Your task to perform on an android device: change text size in settings app Image 0: 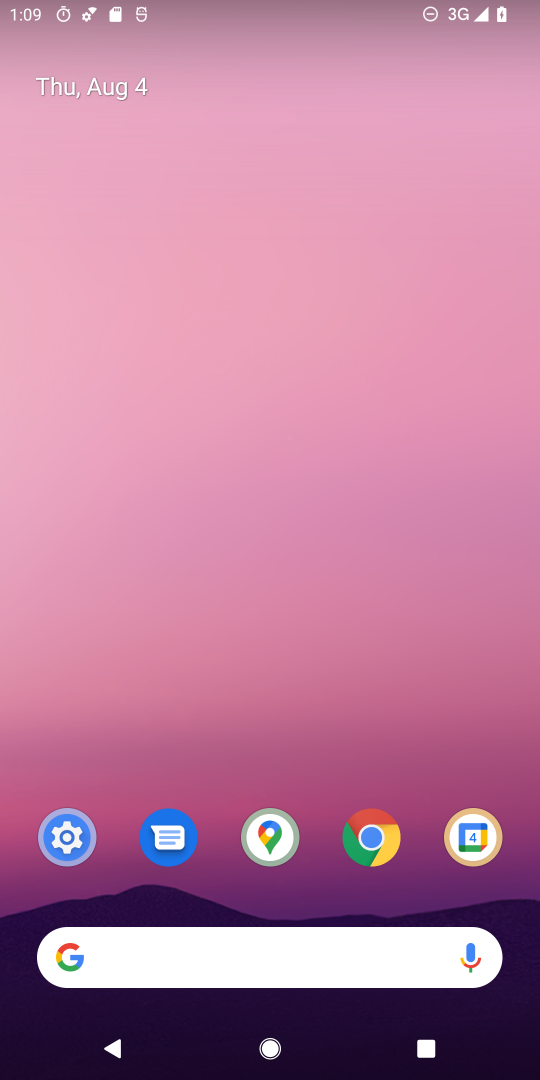
Step 0: drag from (412, 892) to (252, 40)
Your task to perform on an android device: change text size in settings app Image 1: 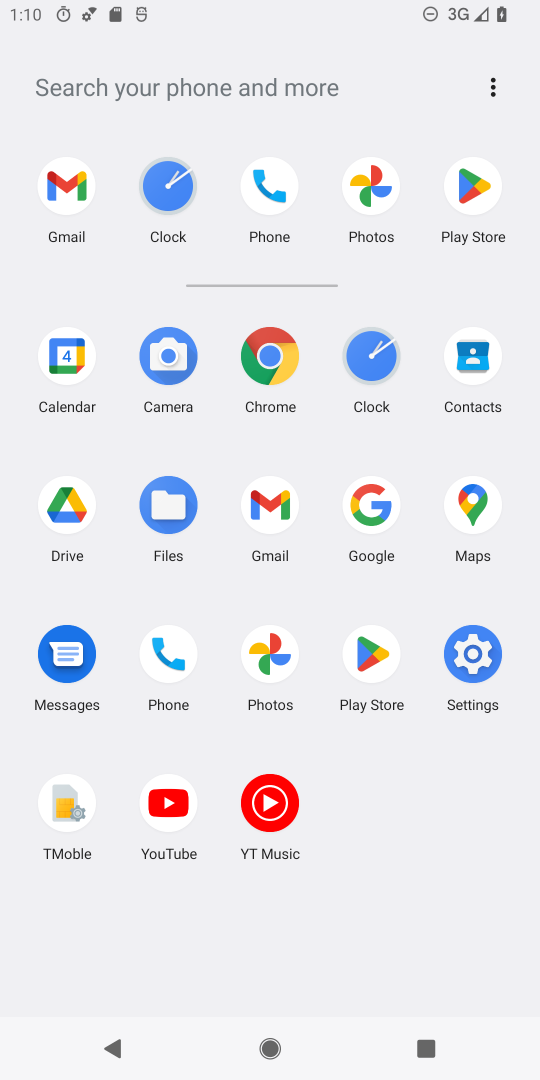
Step 1: click (476, 650)
Your task to perform on an android device: change text size in settings app Image 2: 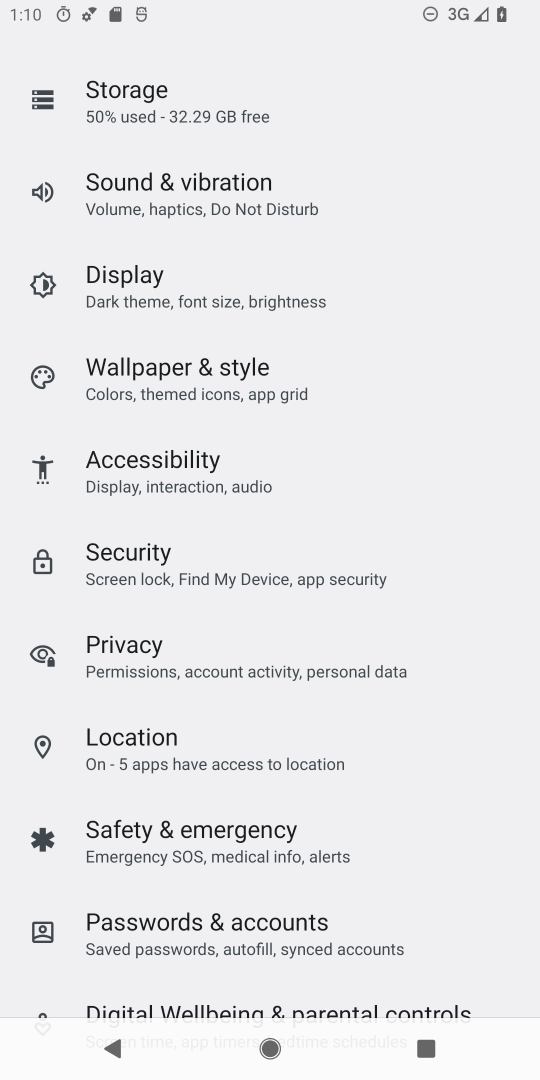
Step 2: click (157, 302)
Your task to perform on an android device: change text size in settings app Image 3: 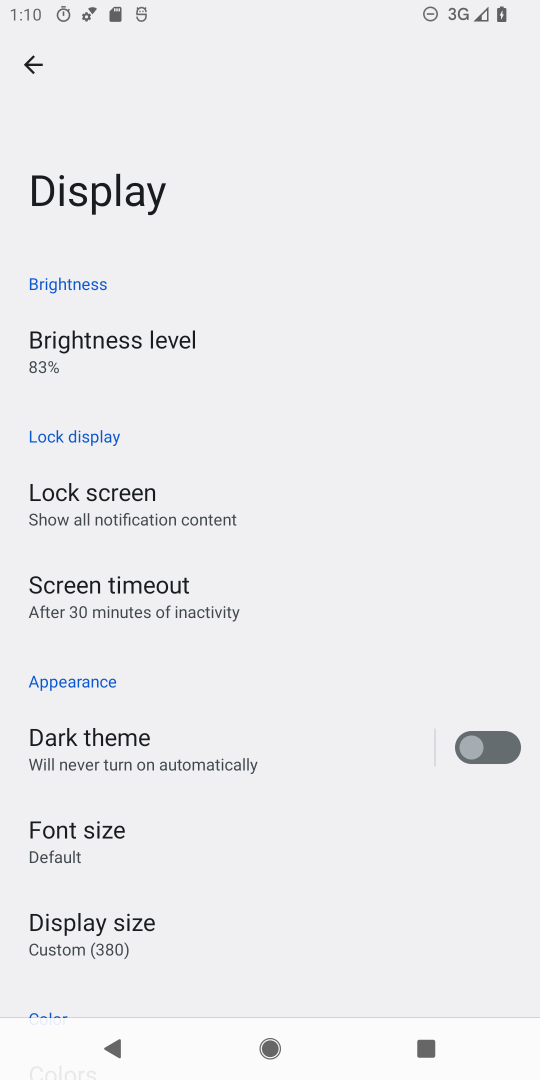
Step 3: click (149, 930)
Your task to perform on an android device: change text size in settings app Image 4: 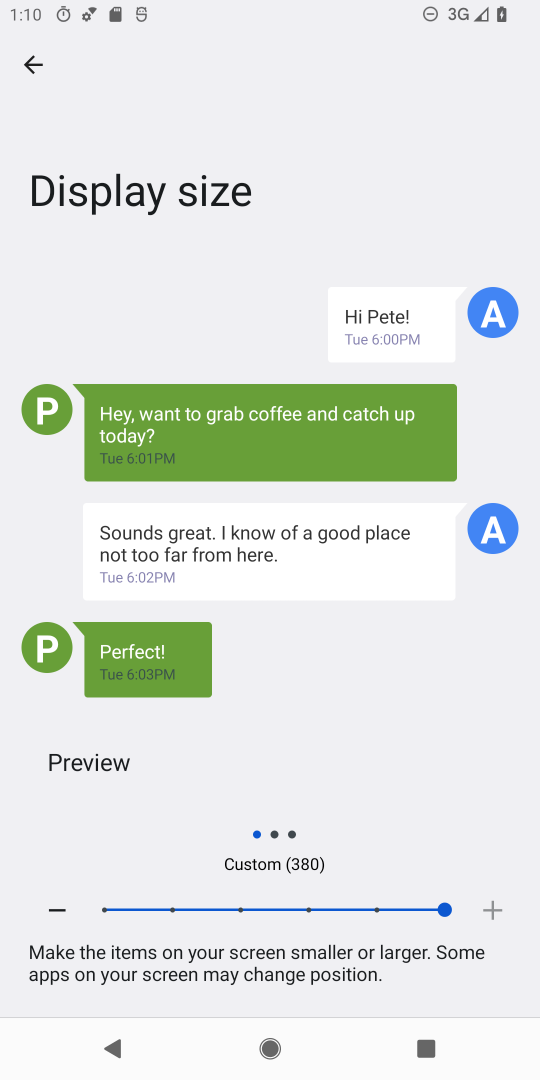
Step 4: click (379, 905)
Your task to perform on an android device: change text size in settings app Image 5: 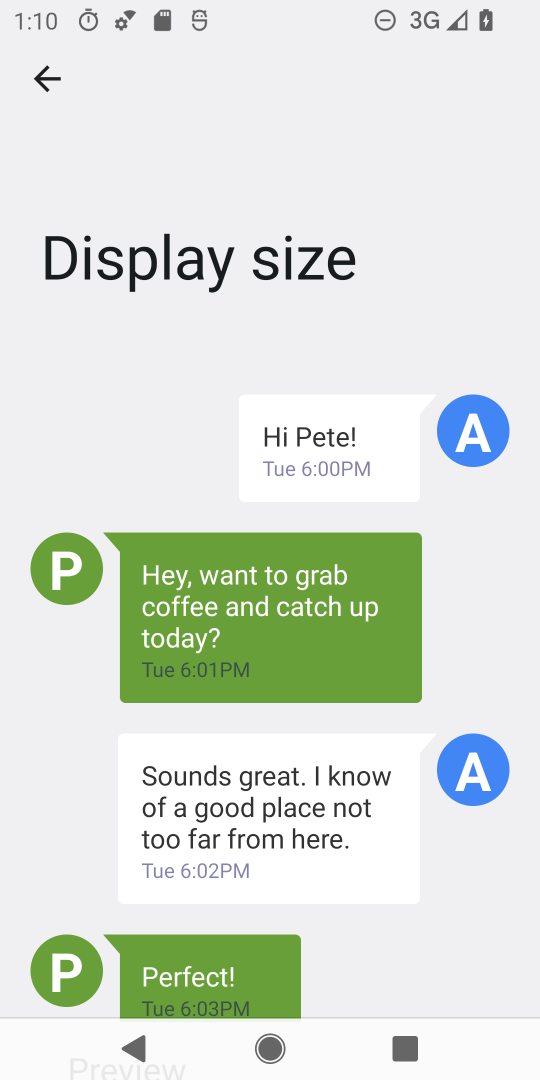
Step 5: task complete